Your task to perform on an android device: Open eBay Image 0: 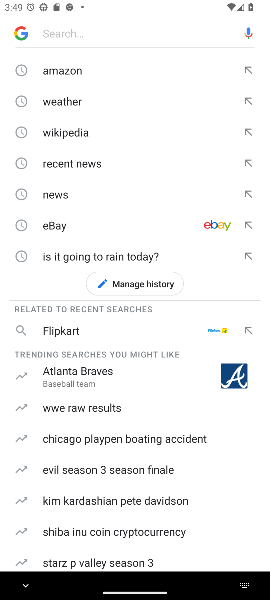
Step 0: click (70, 225)
Your task to perform on an android device: Open eBay Image 1: 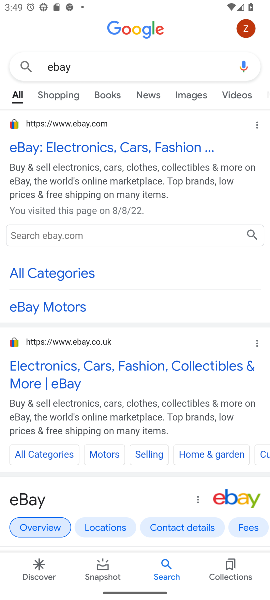
Step 1: click (59, 139)
Your task to perform on an android device: Open eBay Image 2: 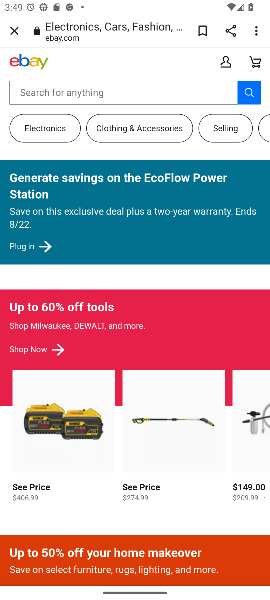
Step 2: task complete